Your task to perform on an android device: Search for nike dri-fit shirts on Nike Image 0: 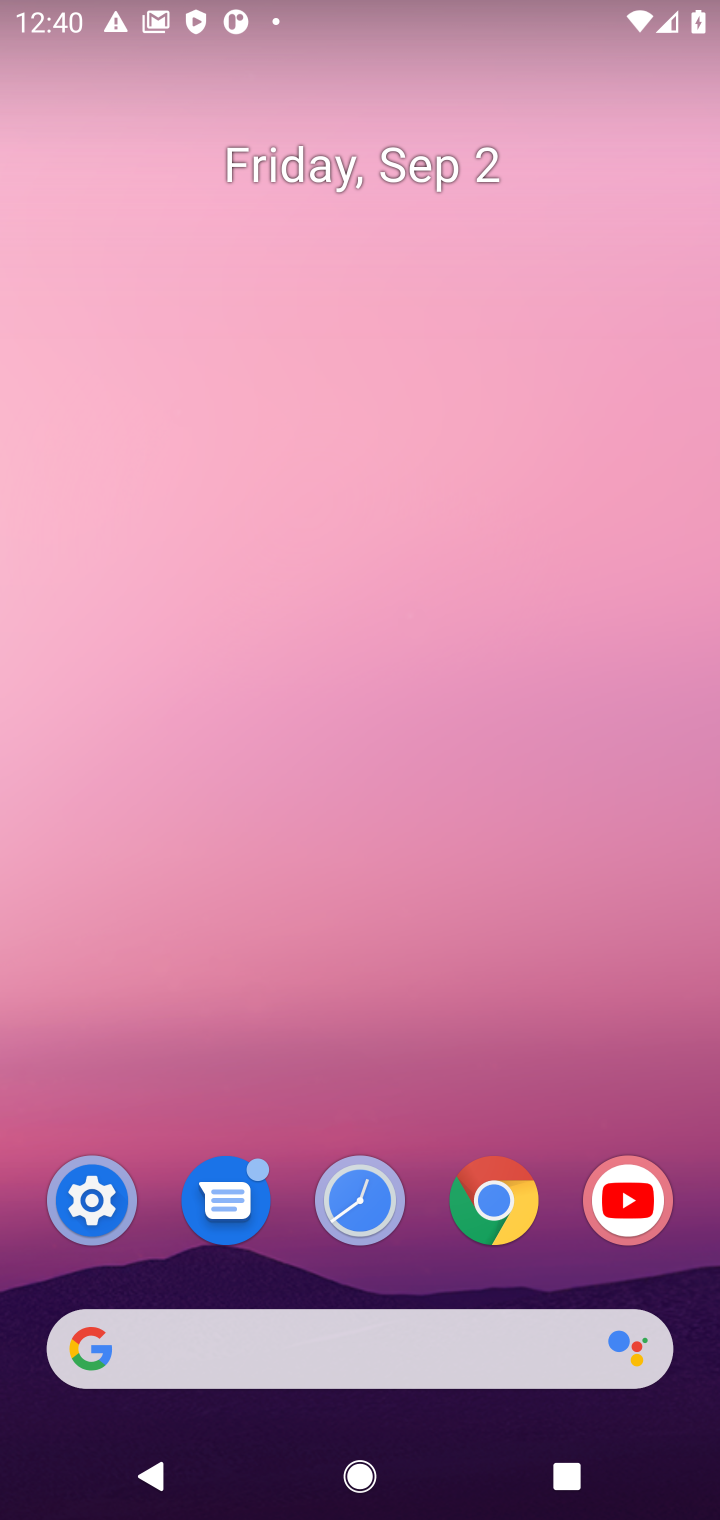
Step 0: click (507, 1190)
Your task to perform on an android device: Search for nike dri-fit shirts on Nike Image 1: 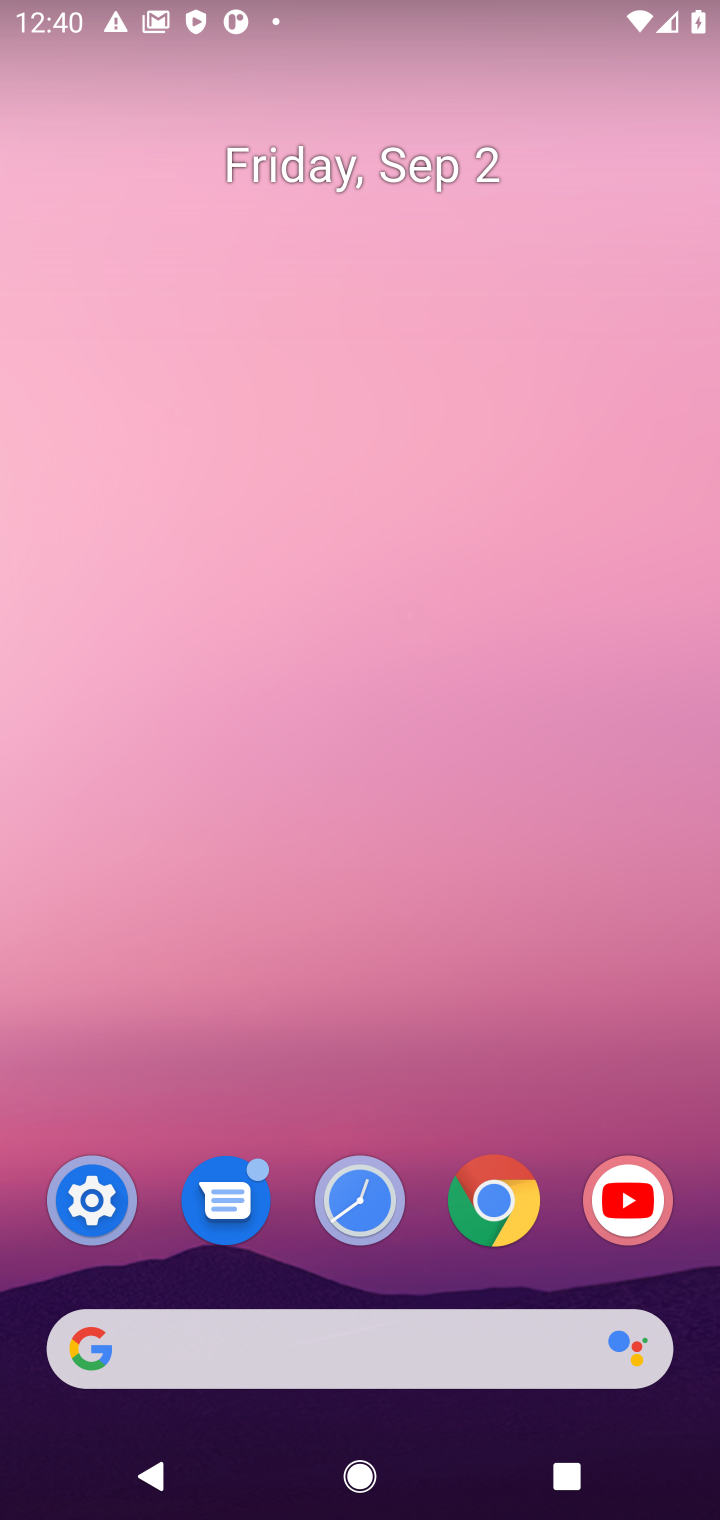
Step 1: click (491, 1205)
Your task to perform on an android device: Search for nike dri-fit shirts on Nike Image 2: 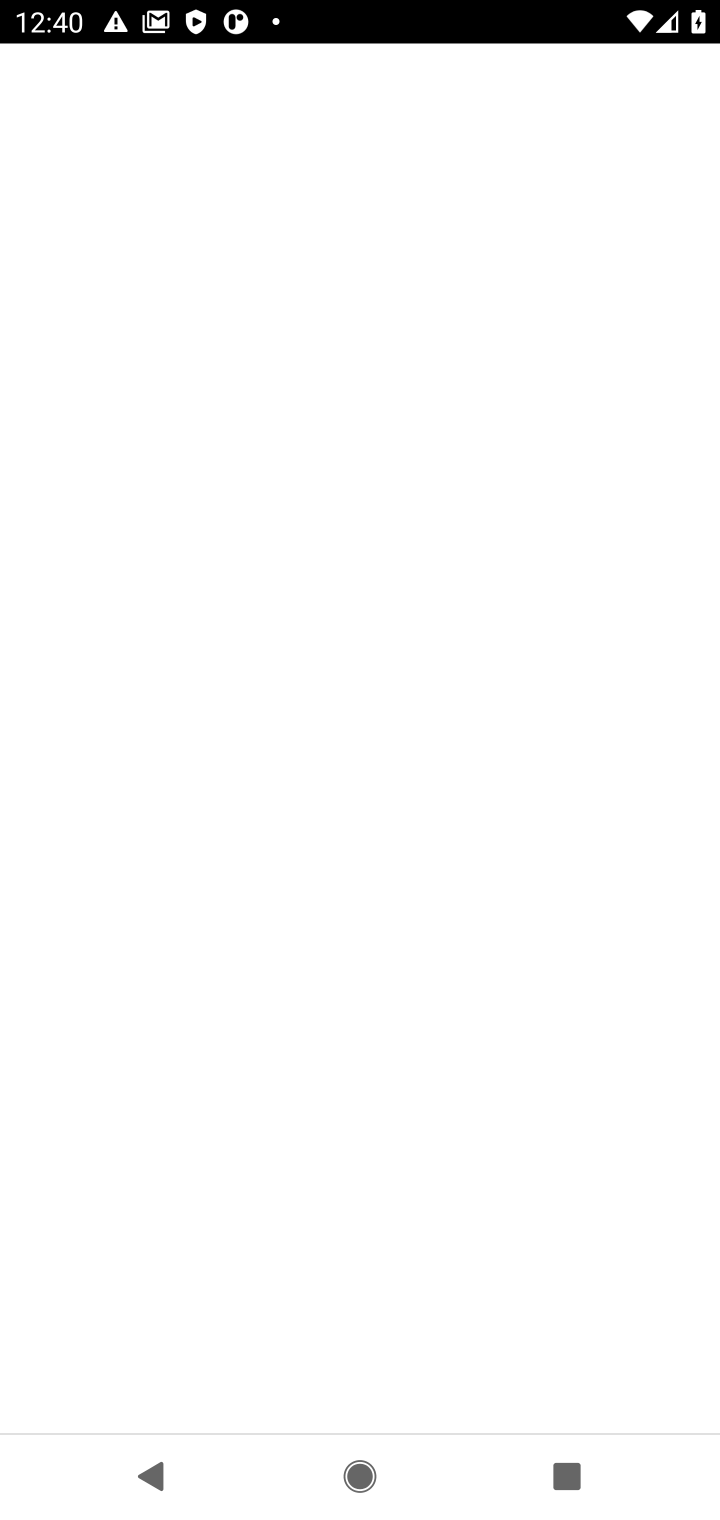
Step 2: press home button
Your task to perform on an android device: Search for nike dri-fit shirts on Nike Image 3: 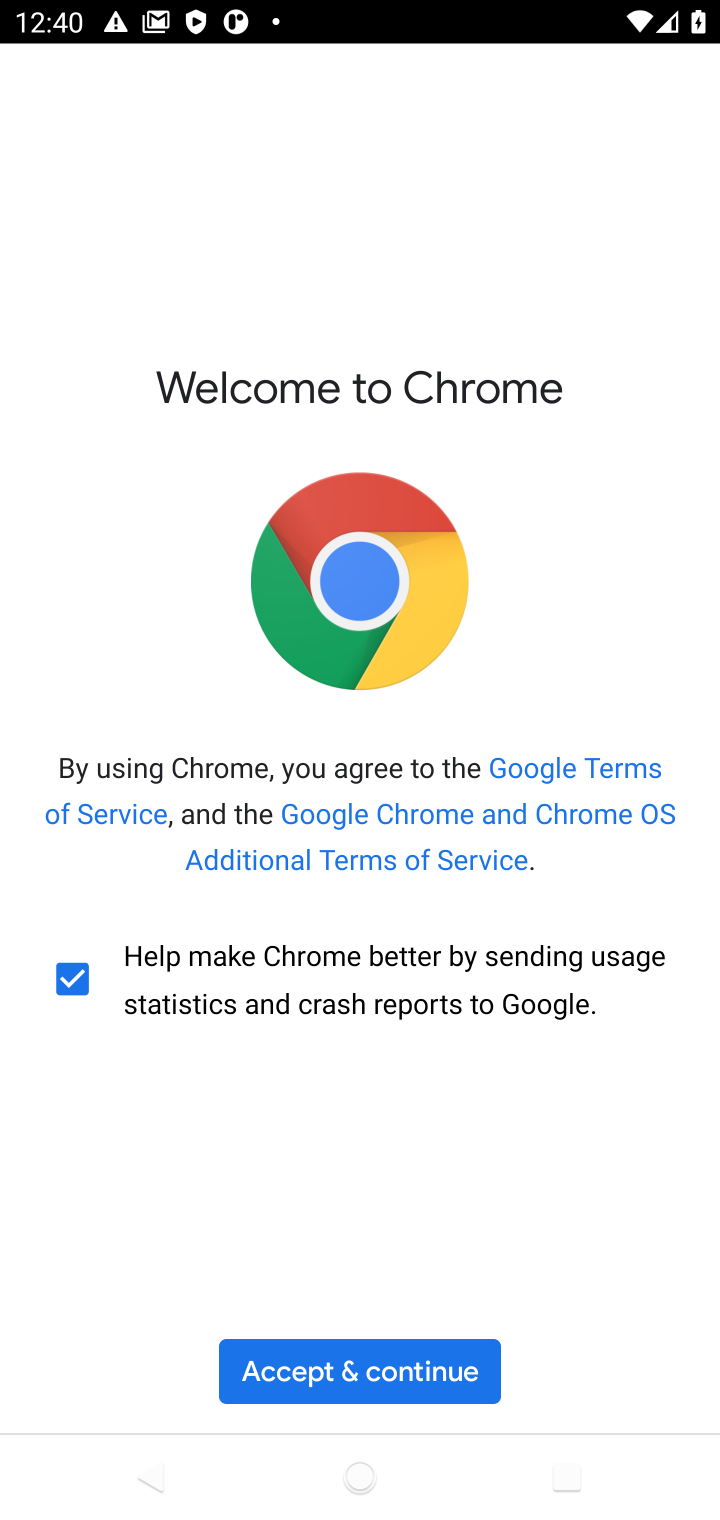
Step 3: press home button
Your task to perform on an android device: Search for nike dri-fit shirts on Nike Image 4: 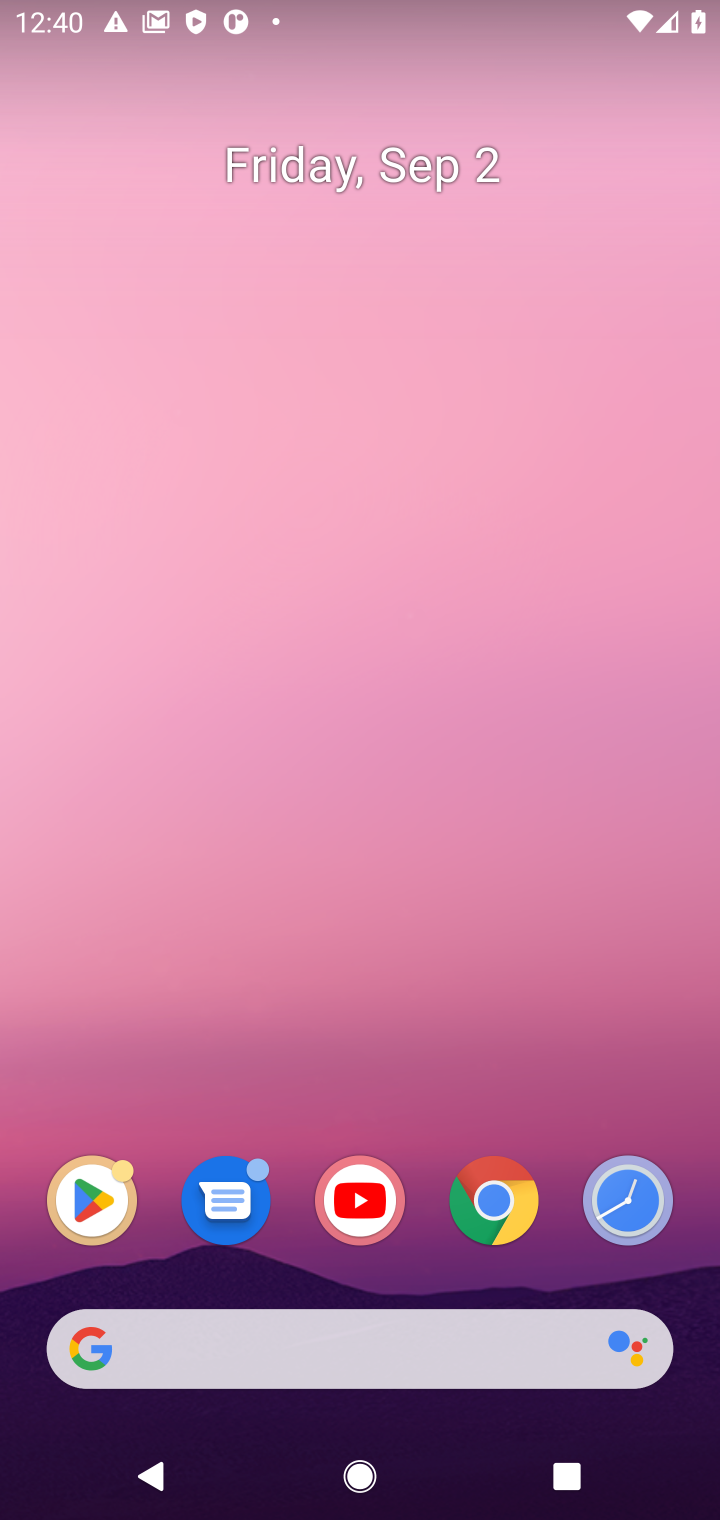
Step 4: click (501, 1209)
Your task to perform on an android device: Search for nike dri-fit shirts on Nike Image 5: 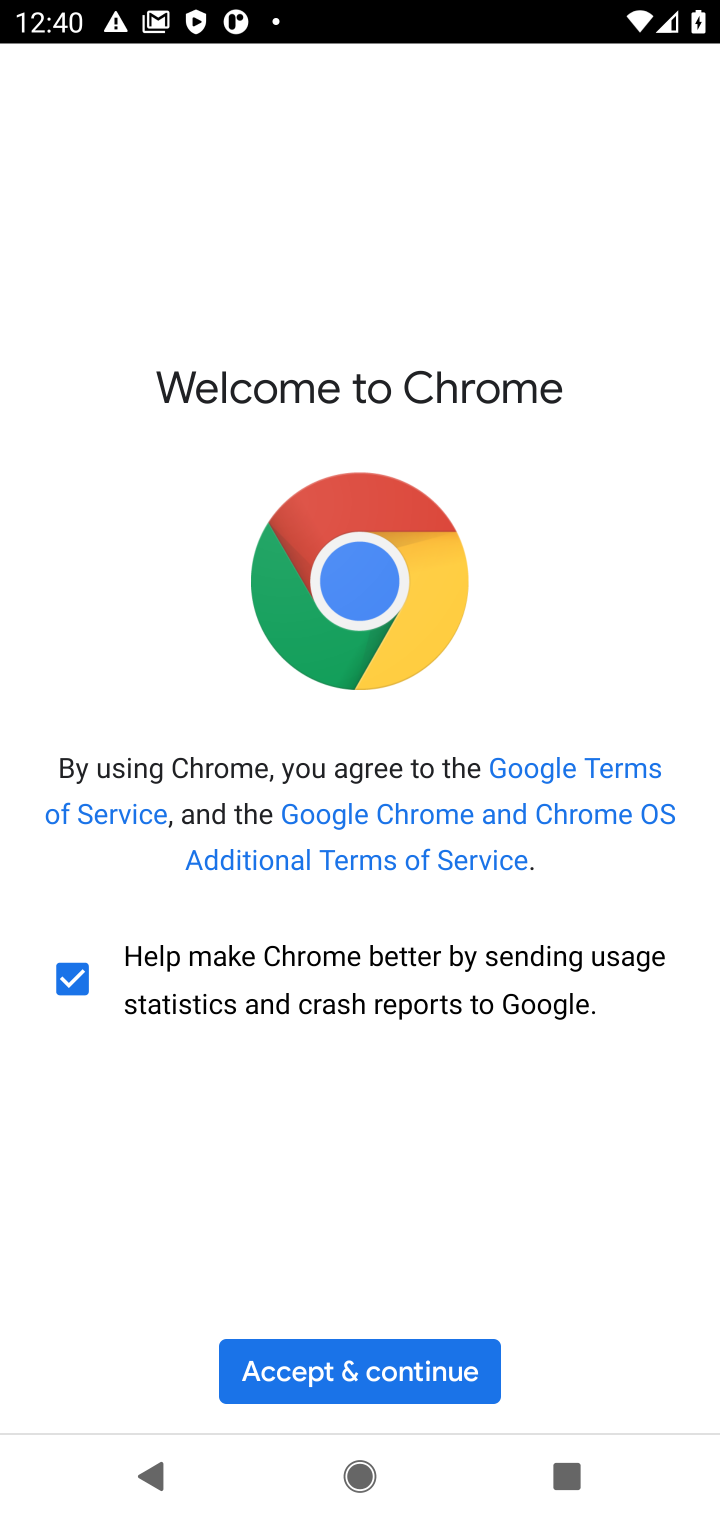
Step 5: click (351, 1362)
Your task to perform on an android device: Search for nike dri-fit shirts on Nike Image 6: 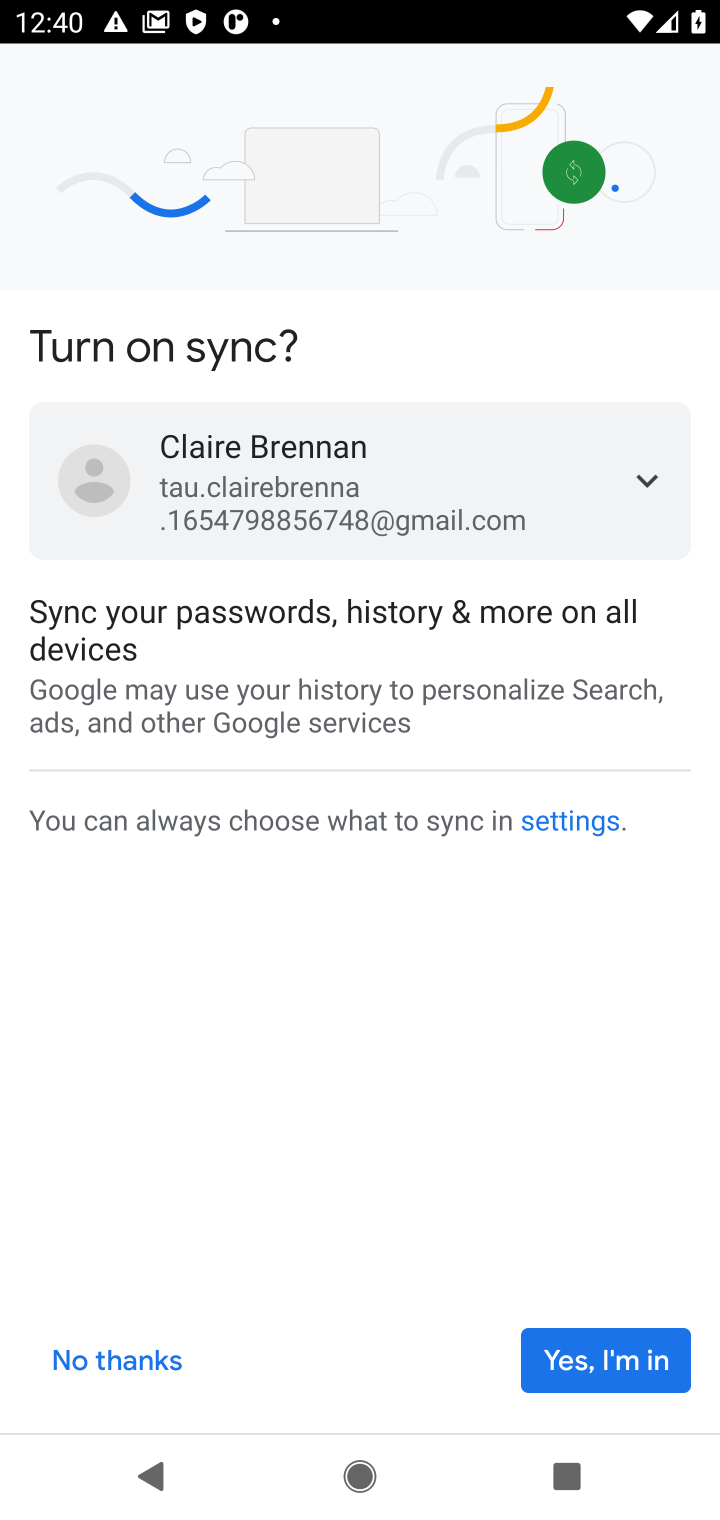
Step 6: click (572, 1390)
Your task to perform on an android device: Search for nike dri-fit shirts on Nike Image 7: 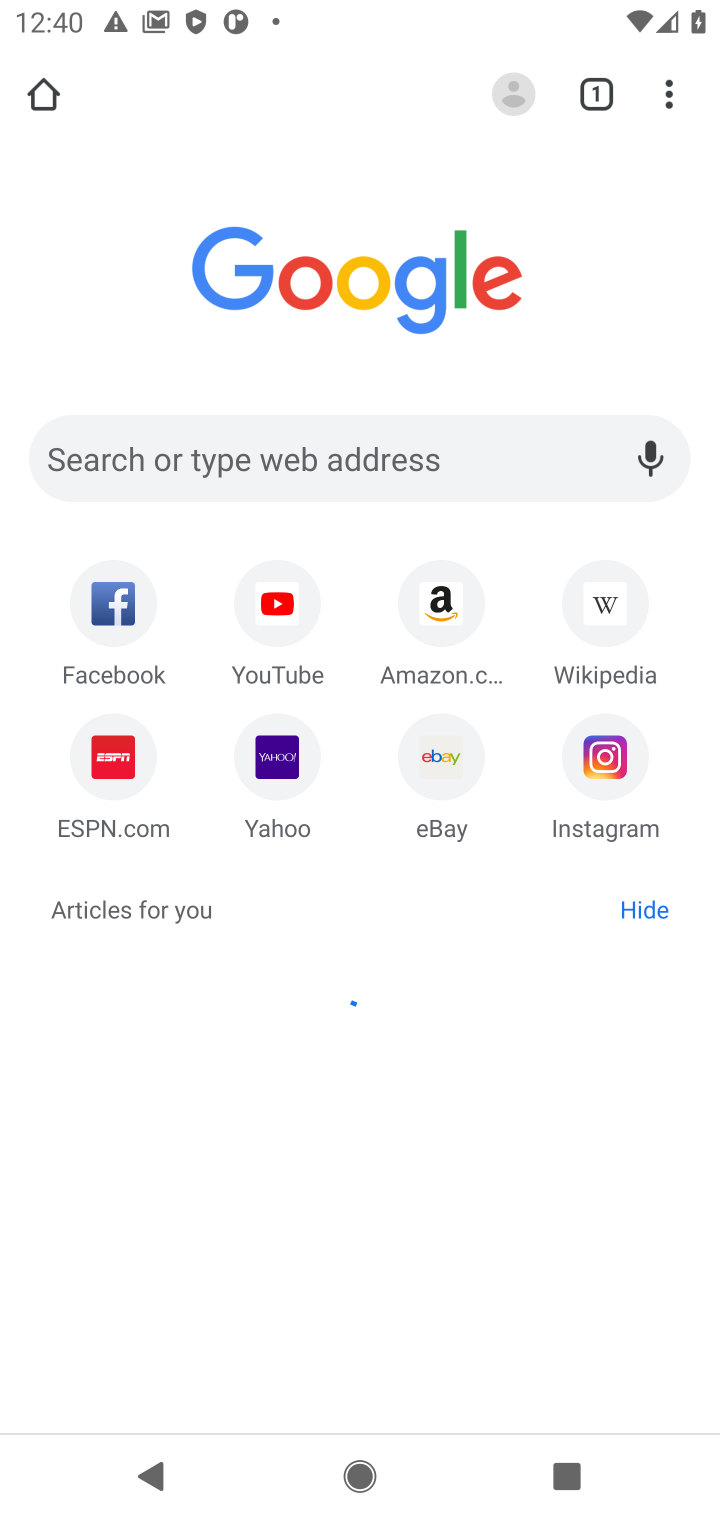
Step 7: click (330, 441)
Your task to perform on an android device: Search for nike dri-fit shirts on Nike Image 8: 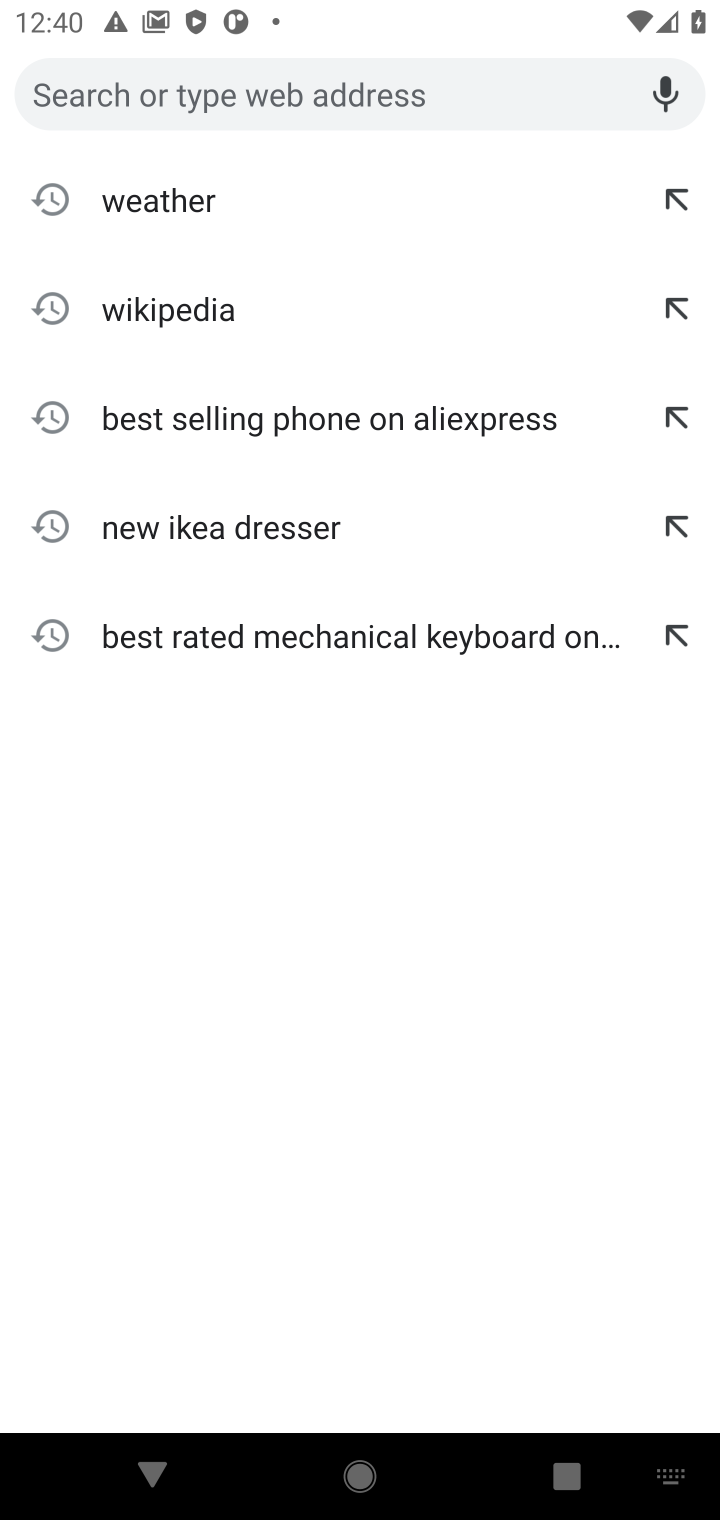
Step 8: type "Nike"
Your task to perform on an android device: Search for nike dri-fit shirts on Nike Image 9: 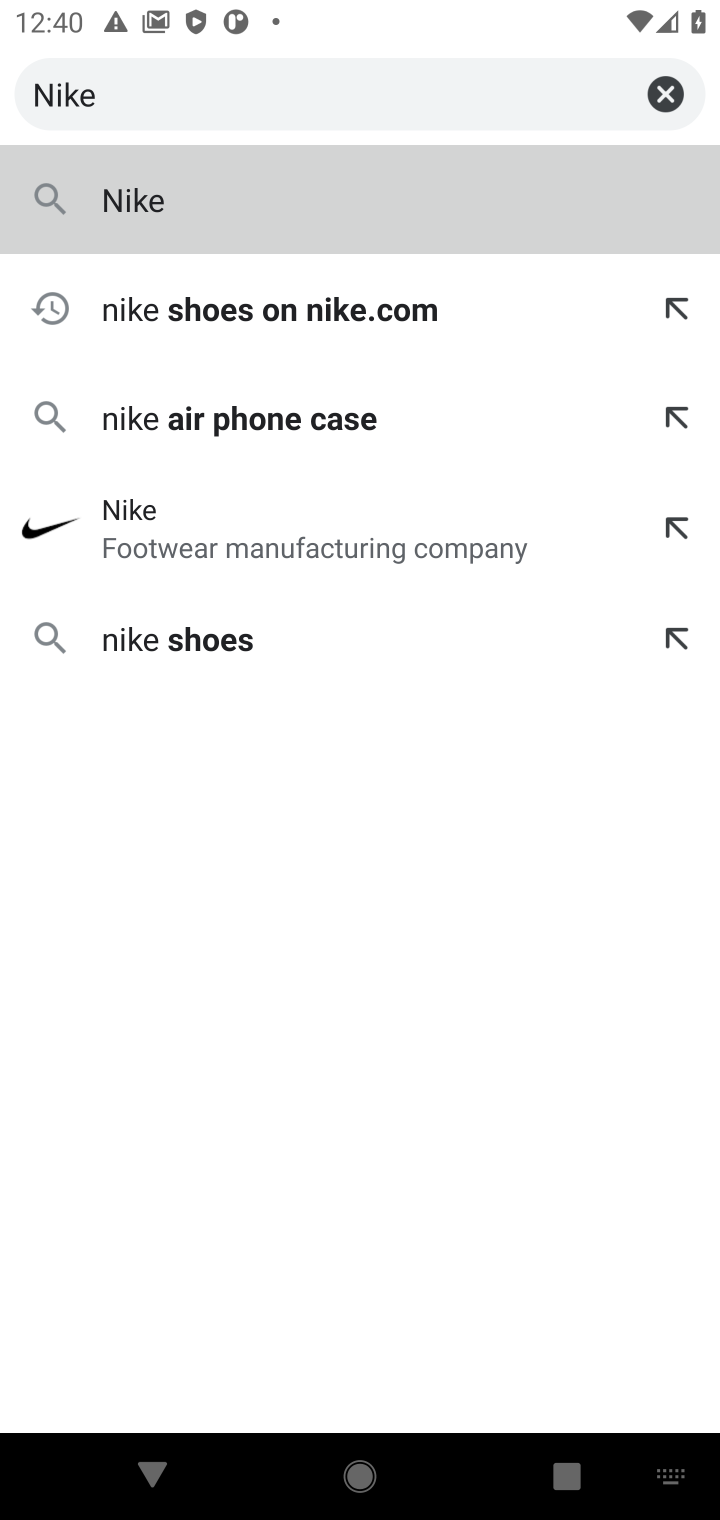
Step 9: press enter
Your task to perform on an android device: Search for nike dri-fit shirts on Nike Image 10: 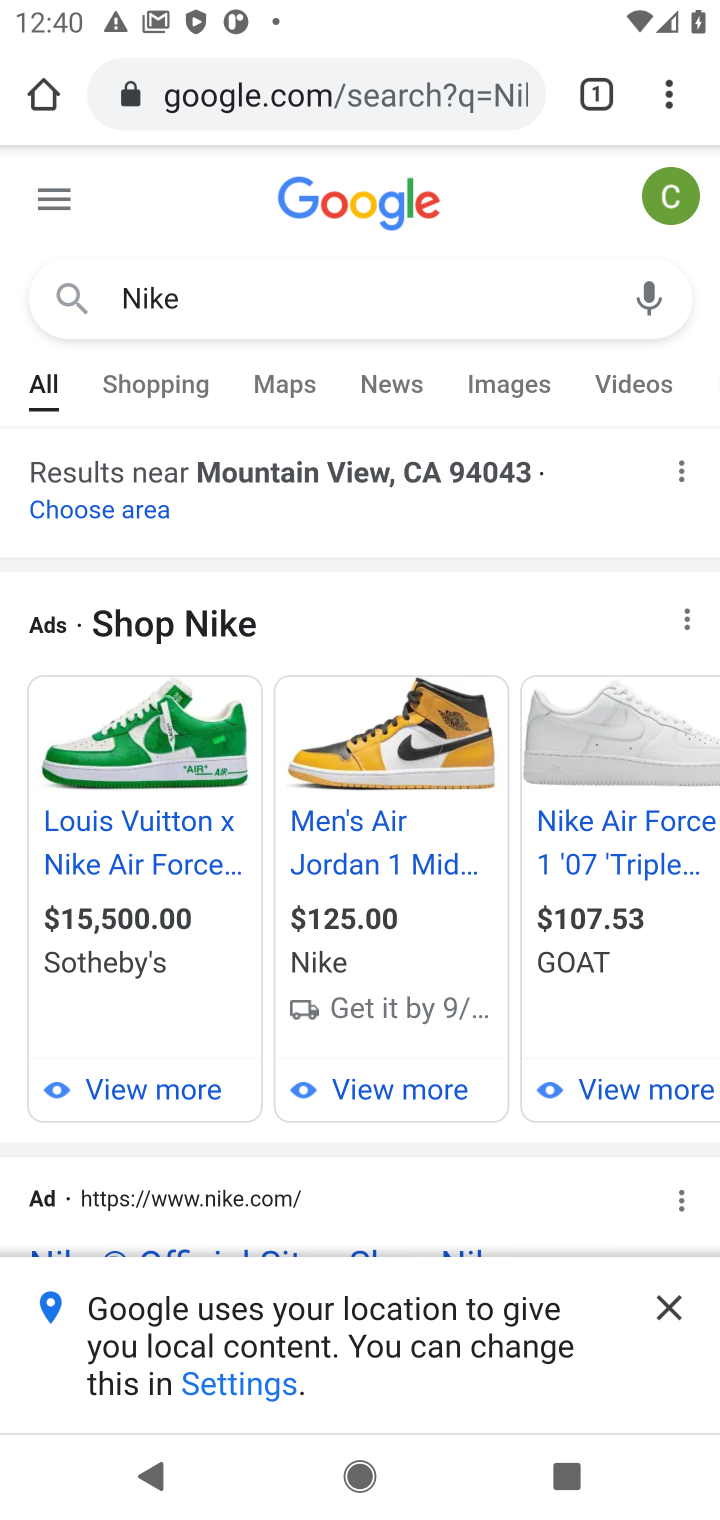
Step 10: click (669, 1305)
Your task to perform on an android device: Search for nike dri-fit shirts on Nike Image 11: 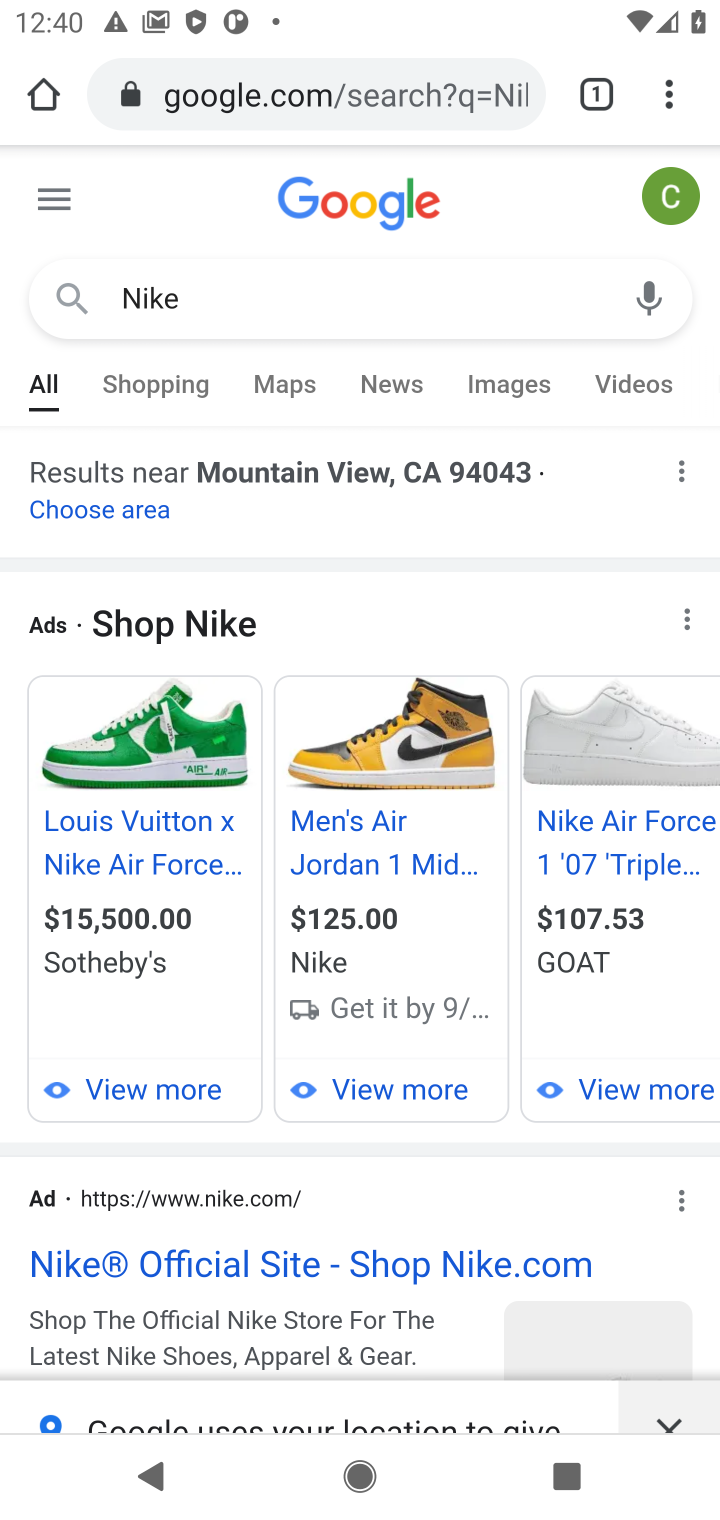
Step 11: drag from (502, 1007) to (532, 598)
Your task to perform on an android device: Search for nike dri-fit shirts on Nike Image 12: 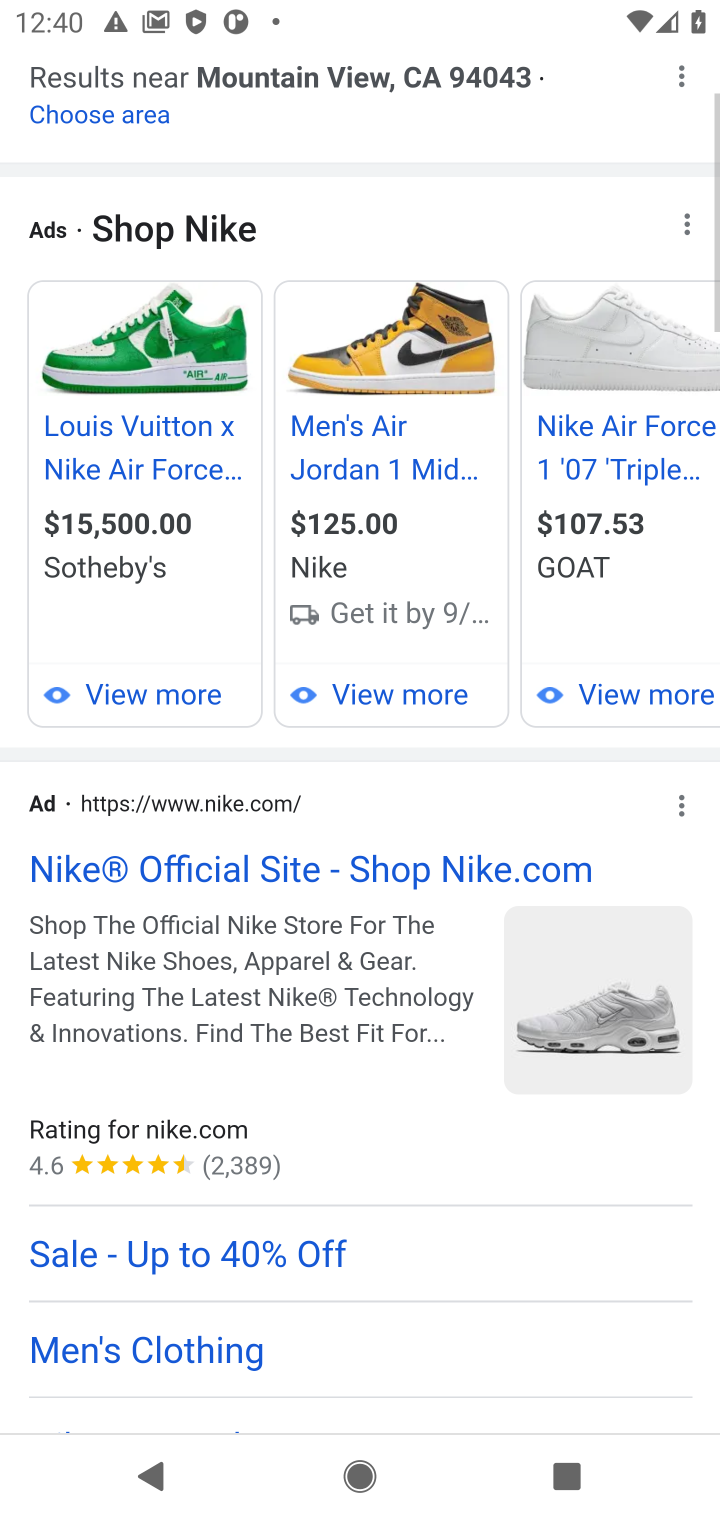
Step 12: click (370, 865)
Your task to perform on an android device: Search for nike dri-fit shirts on Nike Image 13: 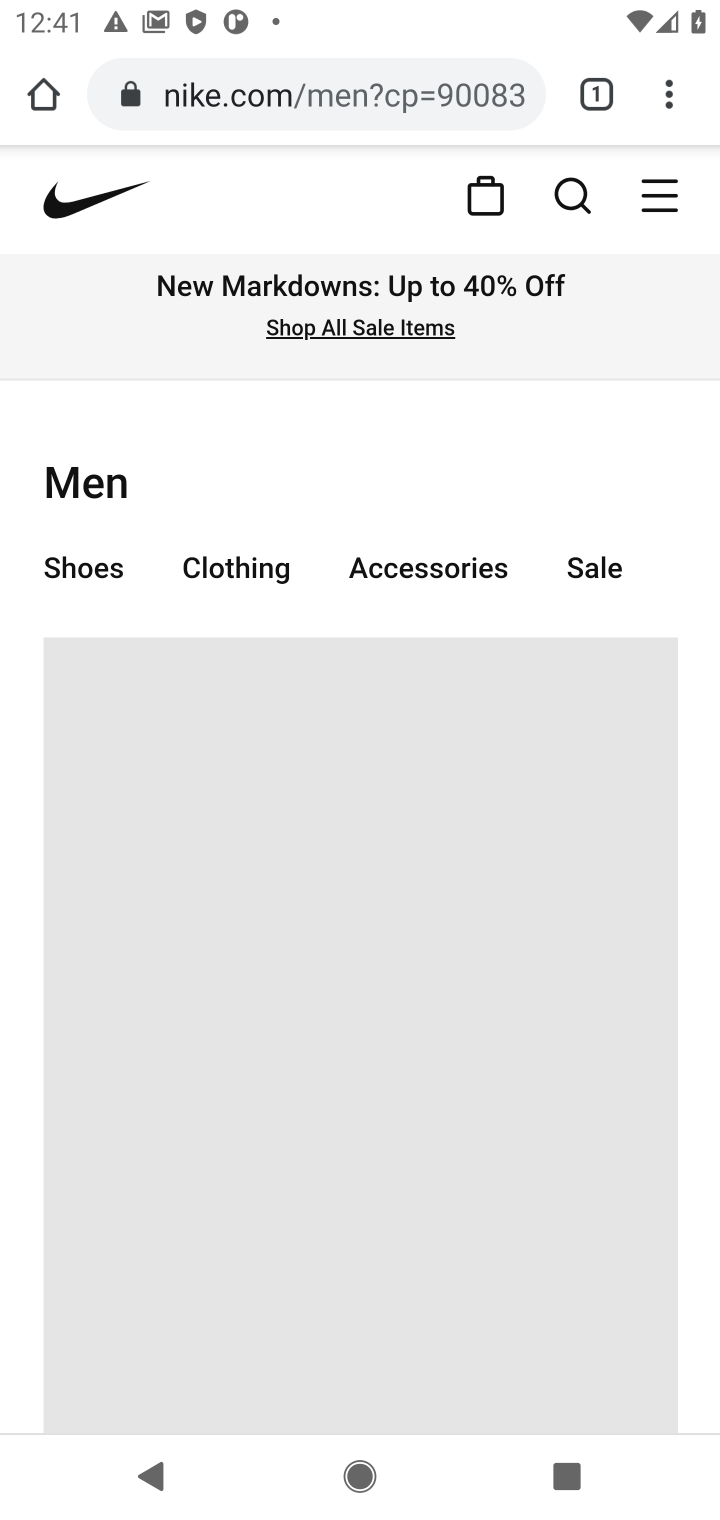
Step 13: click (573, 197)
Your task to perform on an android device: Search for nike dri-fit shirts on Nike Image 14: 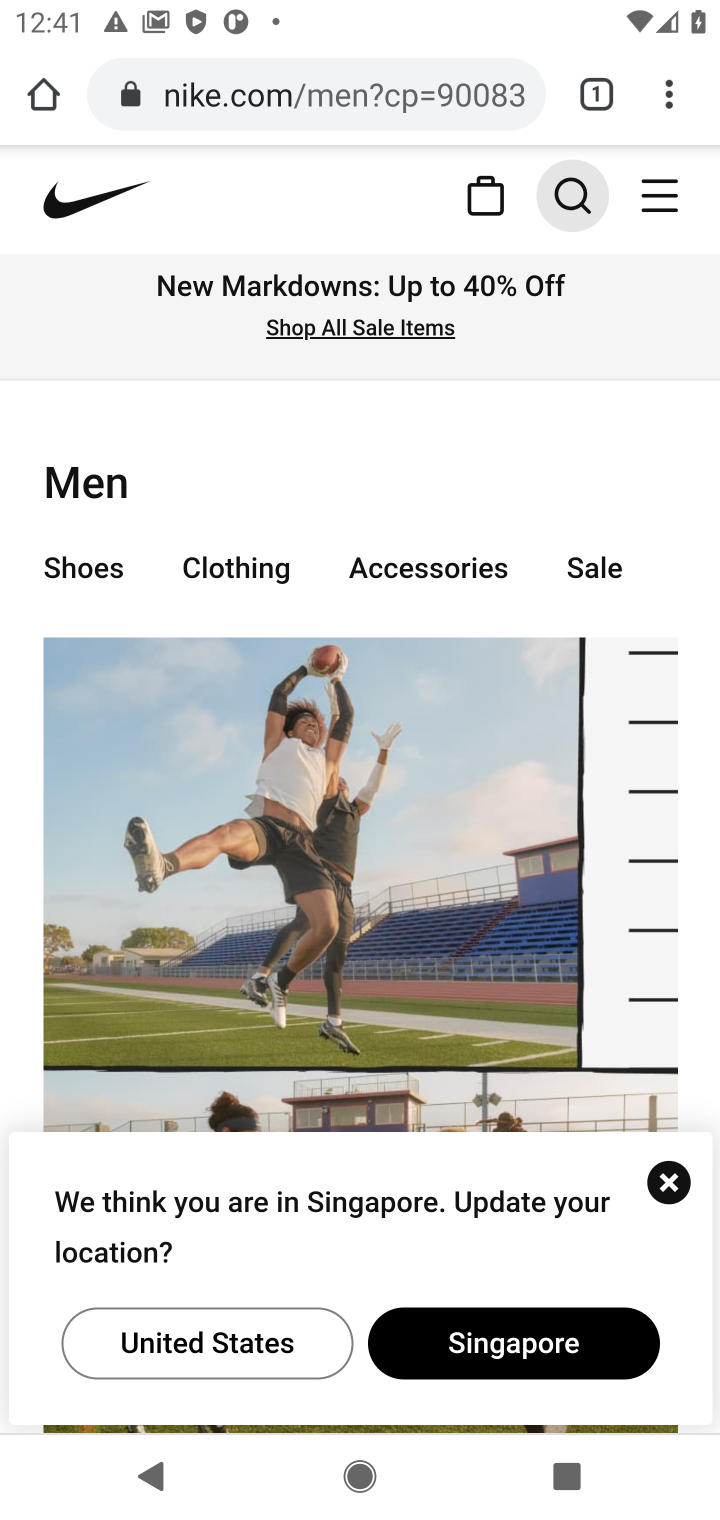
Step 14: click (571, 196)
Your task to perform on an android device: Search for nike dri-fit shirts on Nike Image 15: 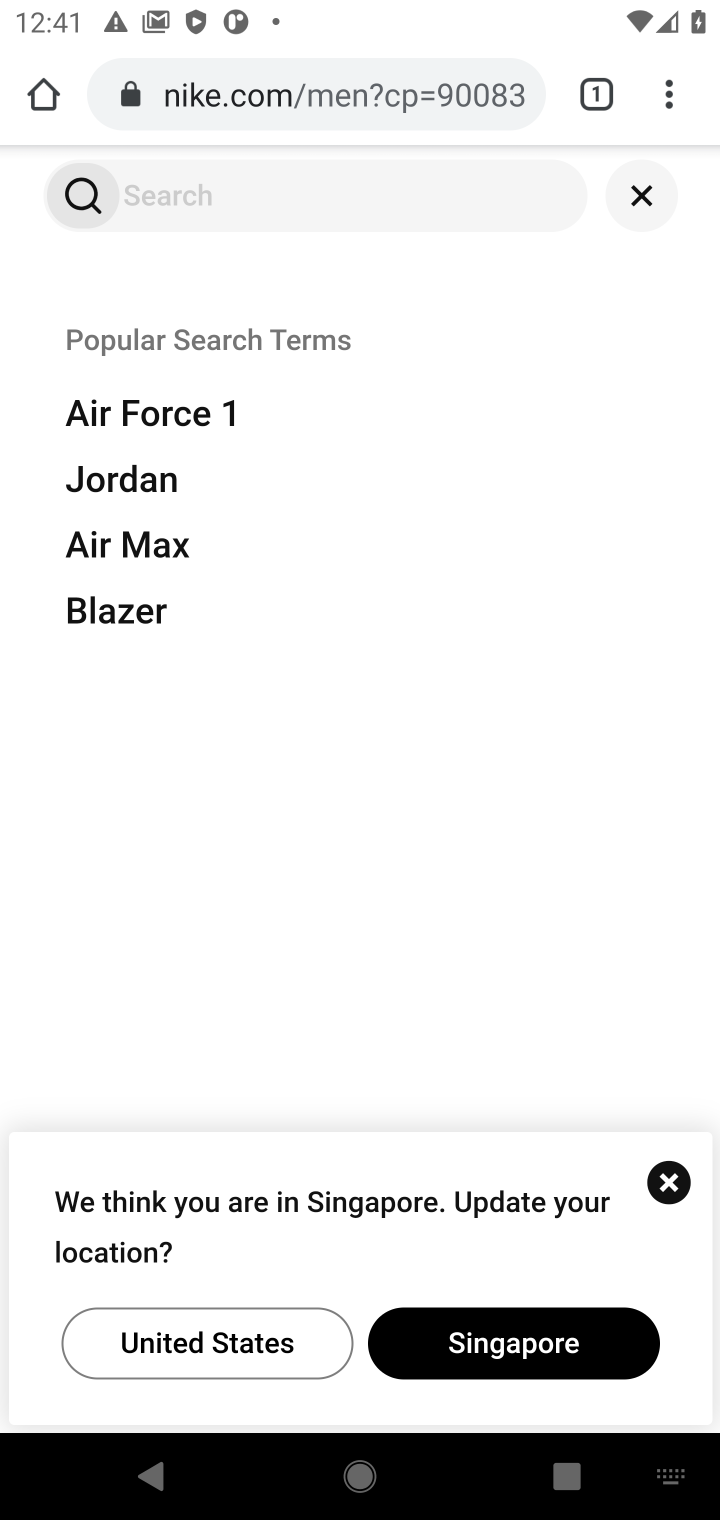
Step 15: type "dri-fit shirts "
Your task to perform on an android device: Search for nike dri-fit shirts on Nike Image 16: 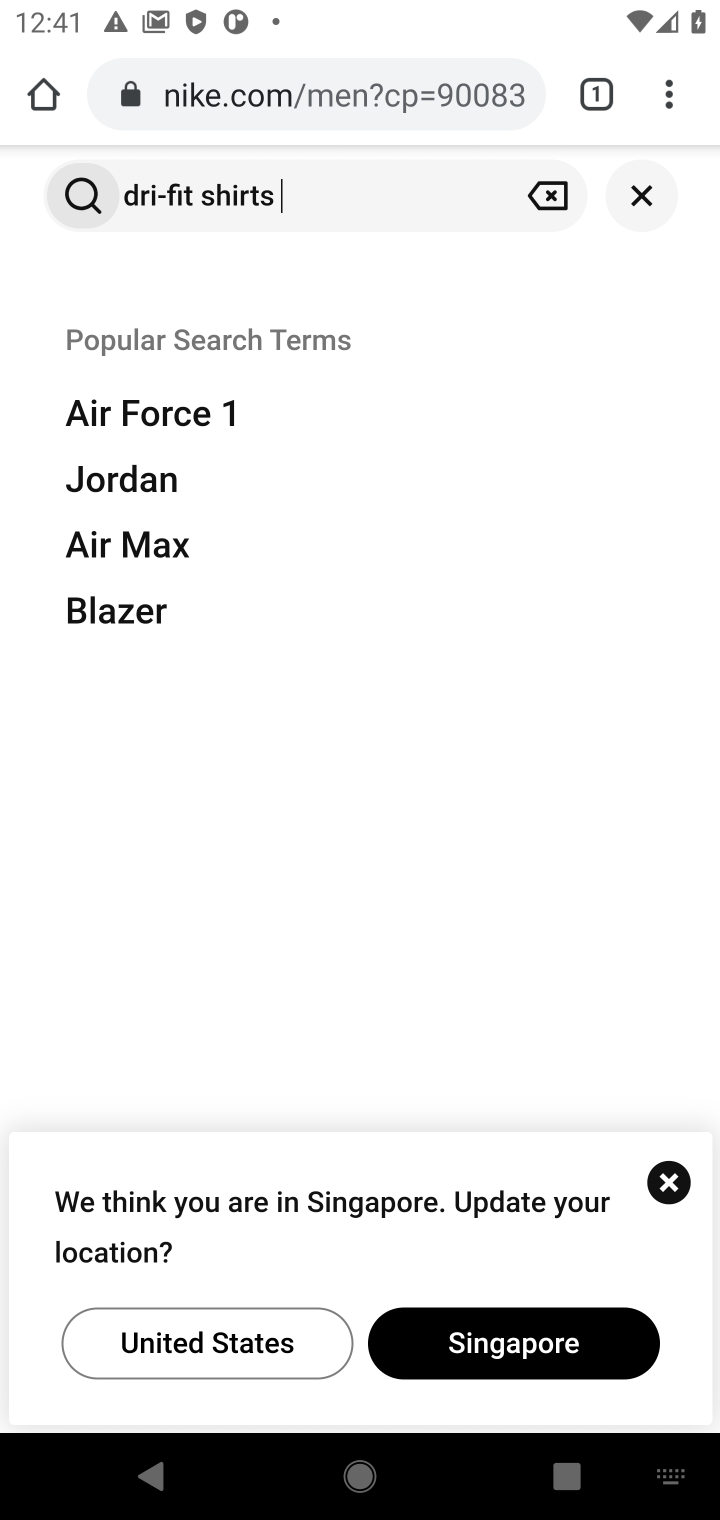
Step 16: press enter
Your task to perform on an android device: Search for nike dri-fit shirts on Nike Image 17: 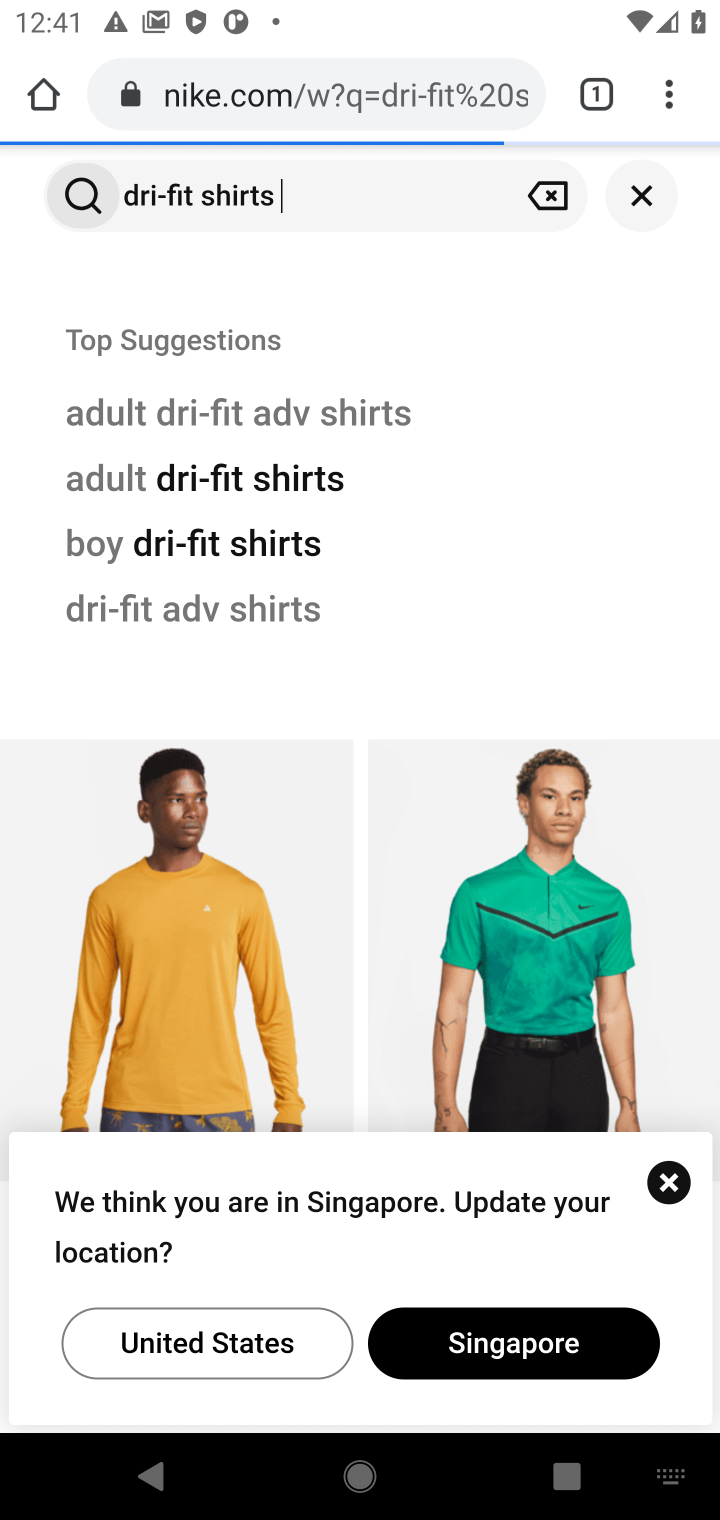
Step 17: drag from (425, 874) to (586, 382)
Your task to perform on an android device: Search for nike dri-fit shirts on Nike Image 18: 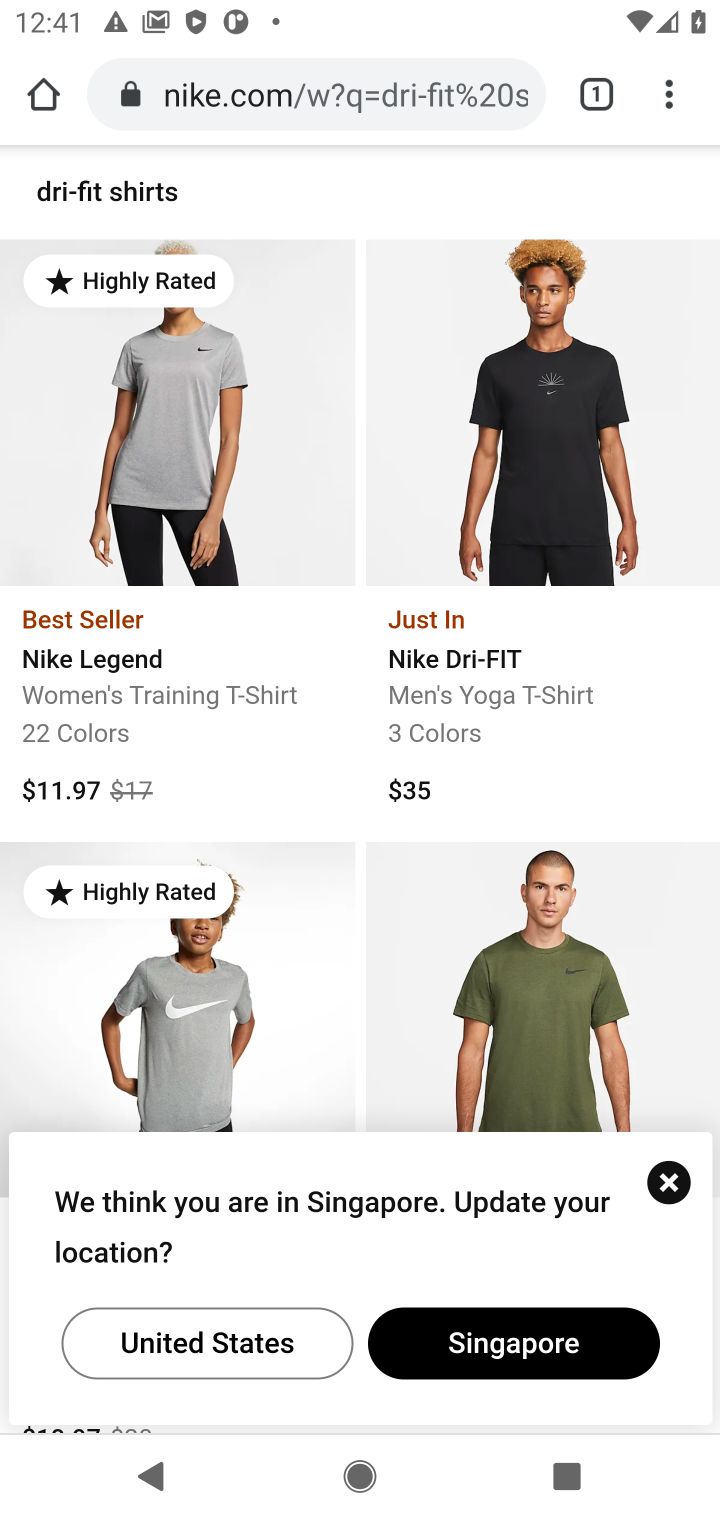
Step 18: drag from (402, 1006) to (594, 205)
Your task to perform on an android device: Search for nike dri-fit shirts on Nike Image 19: 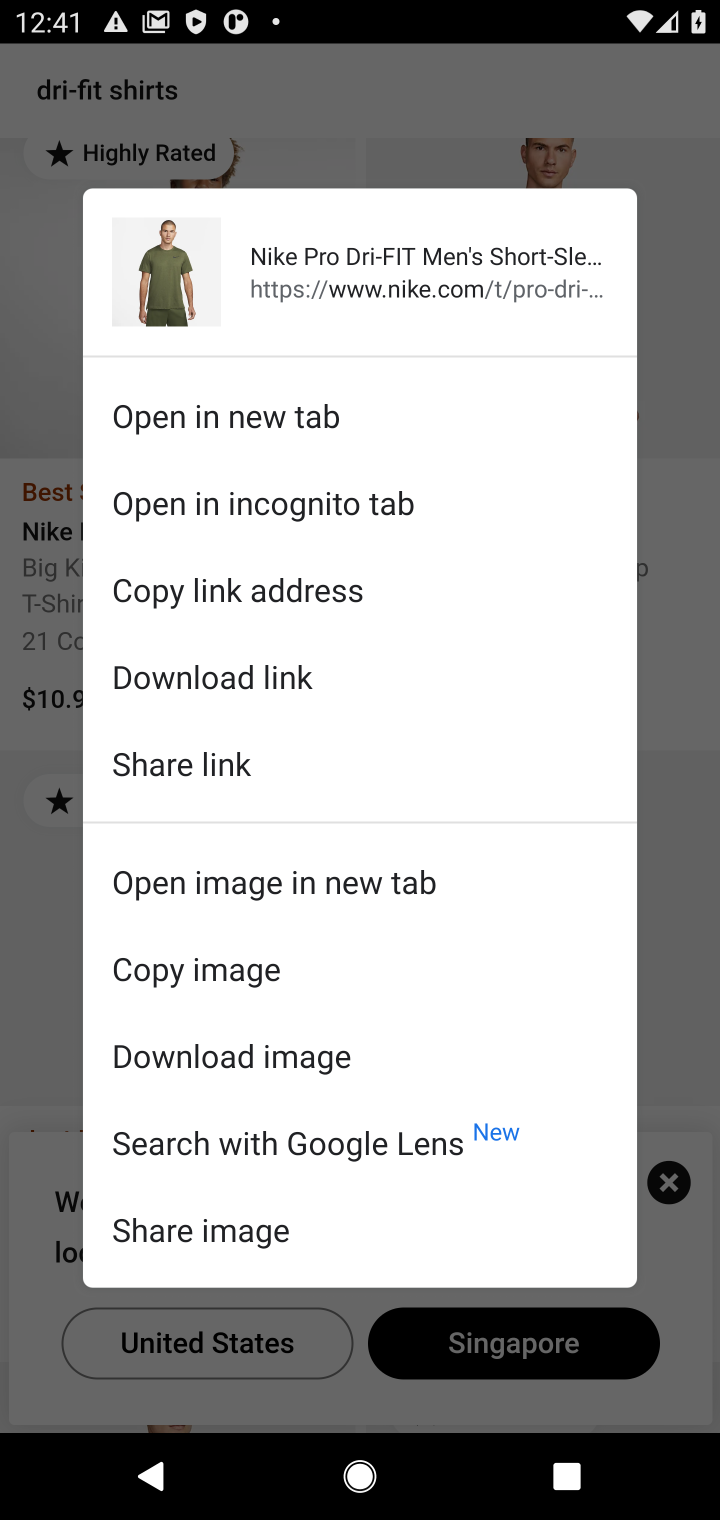
Step 19: click (670, 816)
Your task to perform on an android device: Search for nike dri-fit shirts on Nike Image 20: 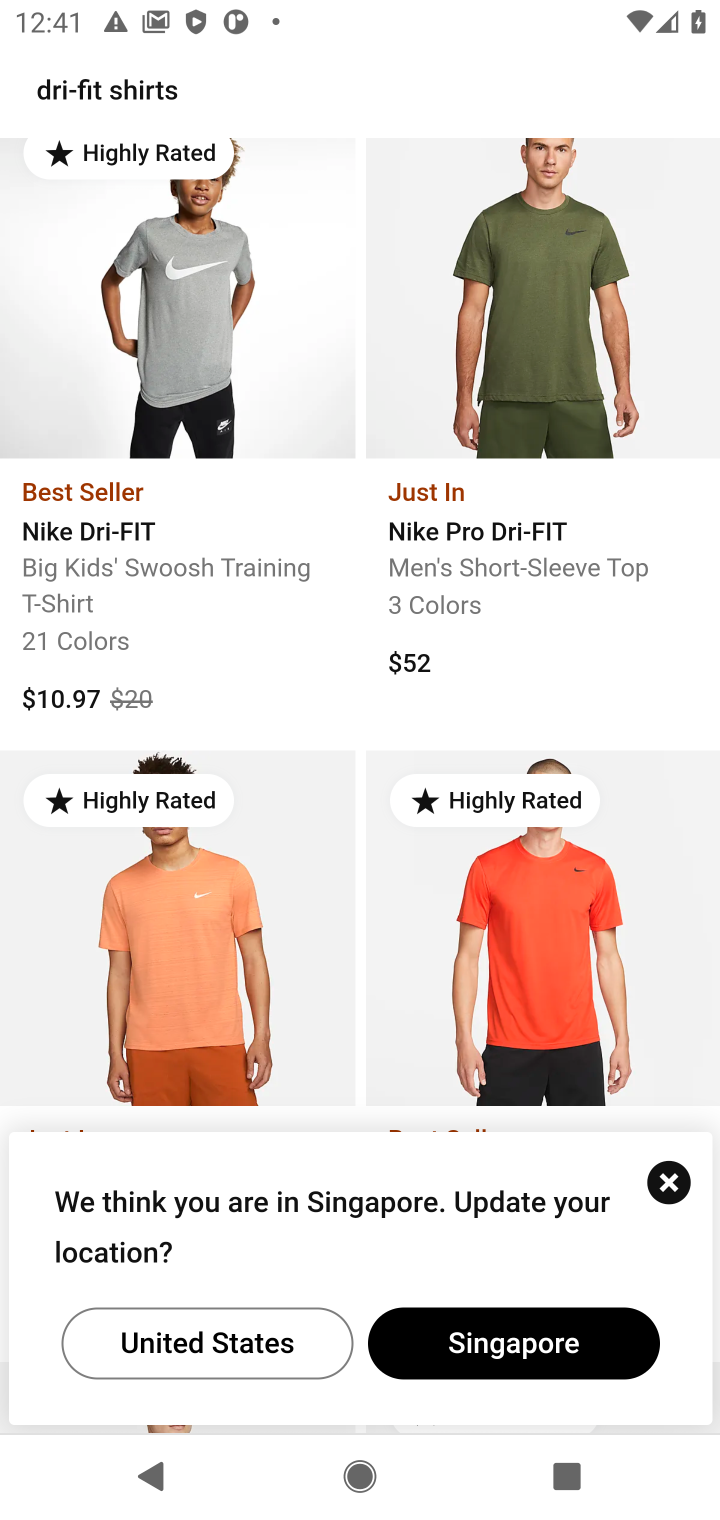
Step 20: task complete